Your task to perform on an android device: Search for "panasonic triple a" on amazon.com, select the first entry, and add it to the cart. Image 0: 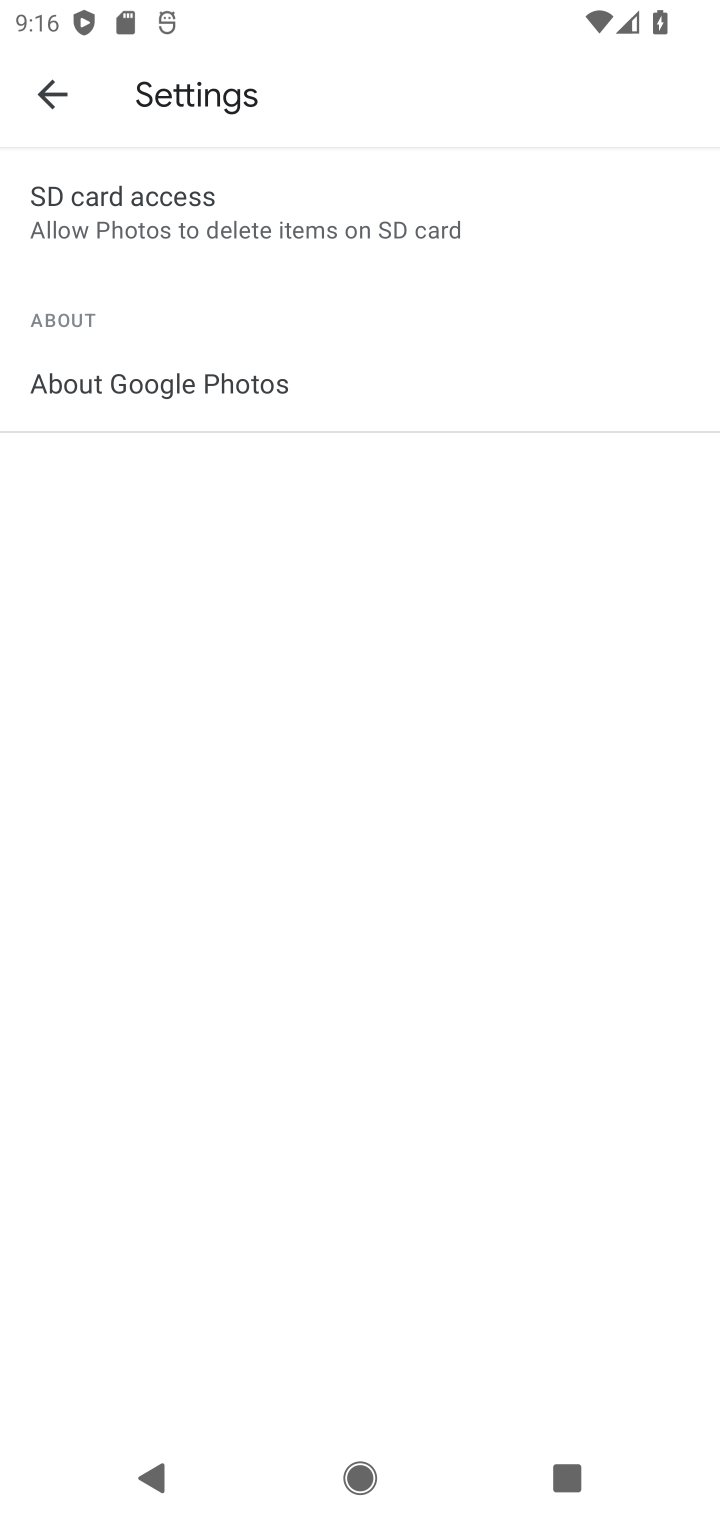
Step 0: press home button
Your task to perform on an android device: Search for "panasonic triple a" on amazon.com, select the first entry, and add it to the cart. Image 1: 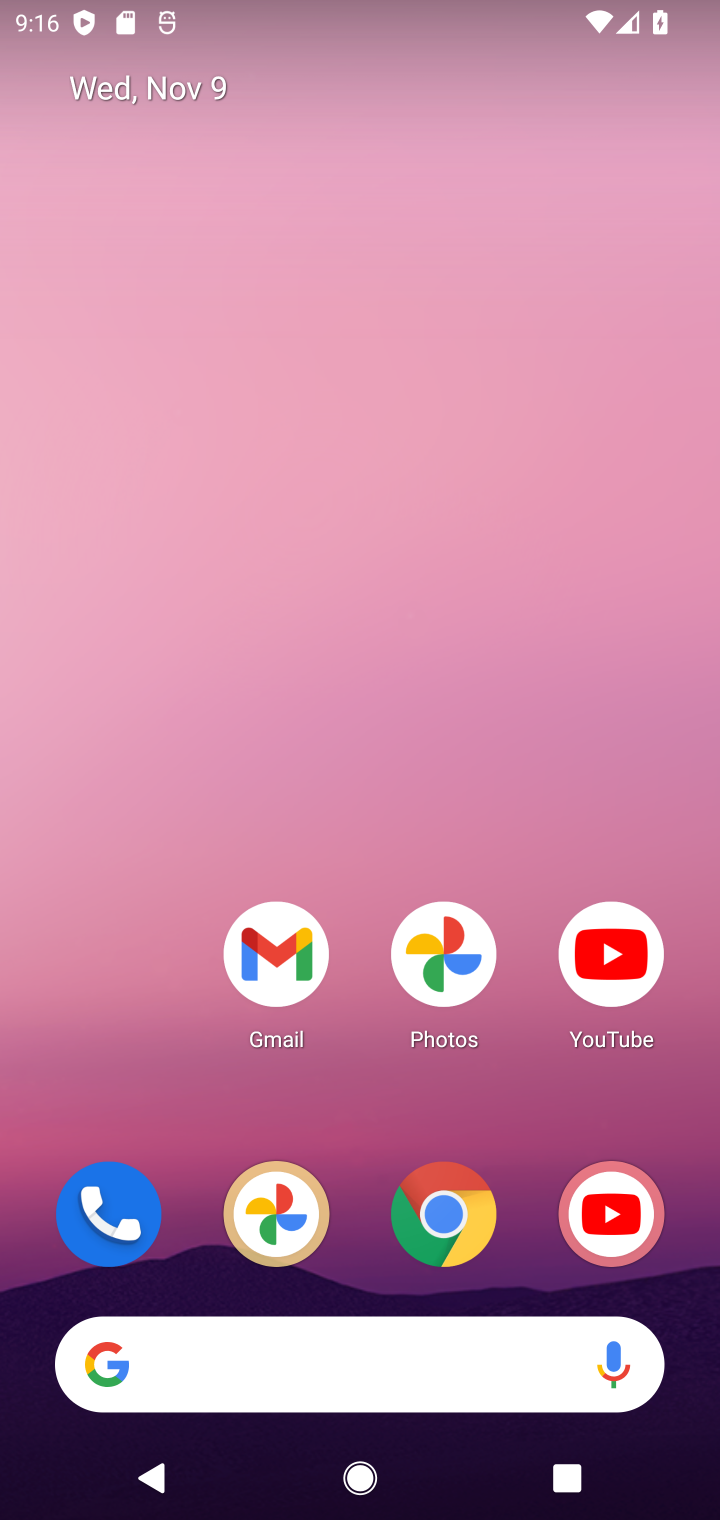
Step 1: drag from (408, 702) to (483, 104)
Your task to perform on an android device: Search for "panasonic triple a" on amazon.com, select the first entry, and add it to the cart. Image 2: 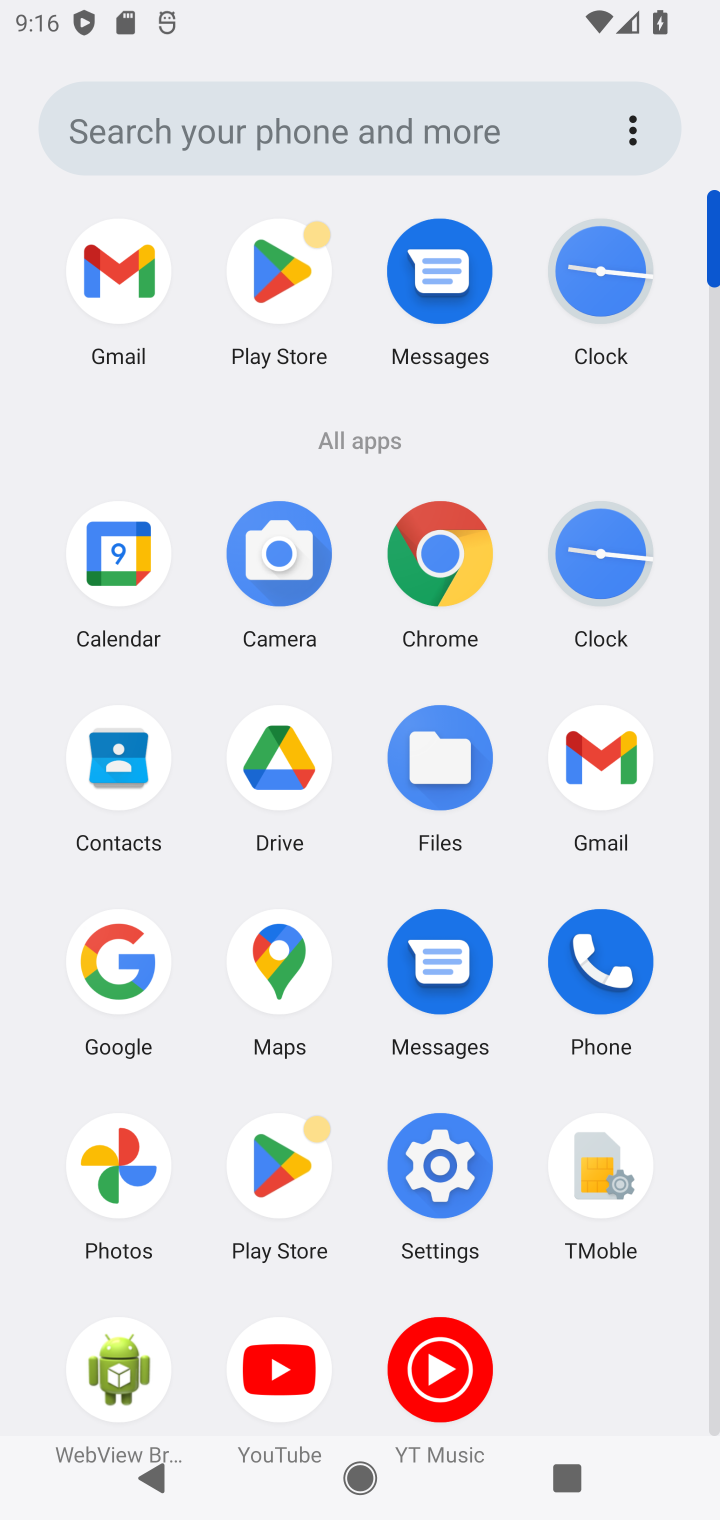
Step 2: click (443, 555)
Your task to perform on an android device: Search for "panasonic triple a" on amazon.com, select the first entry, and add it to the cart. Image 3: 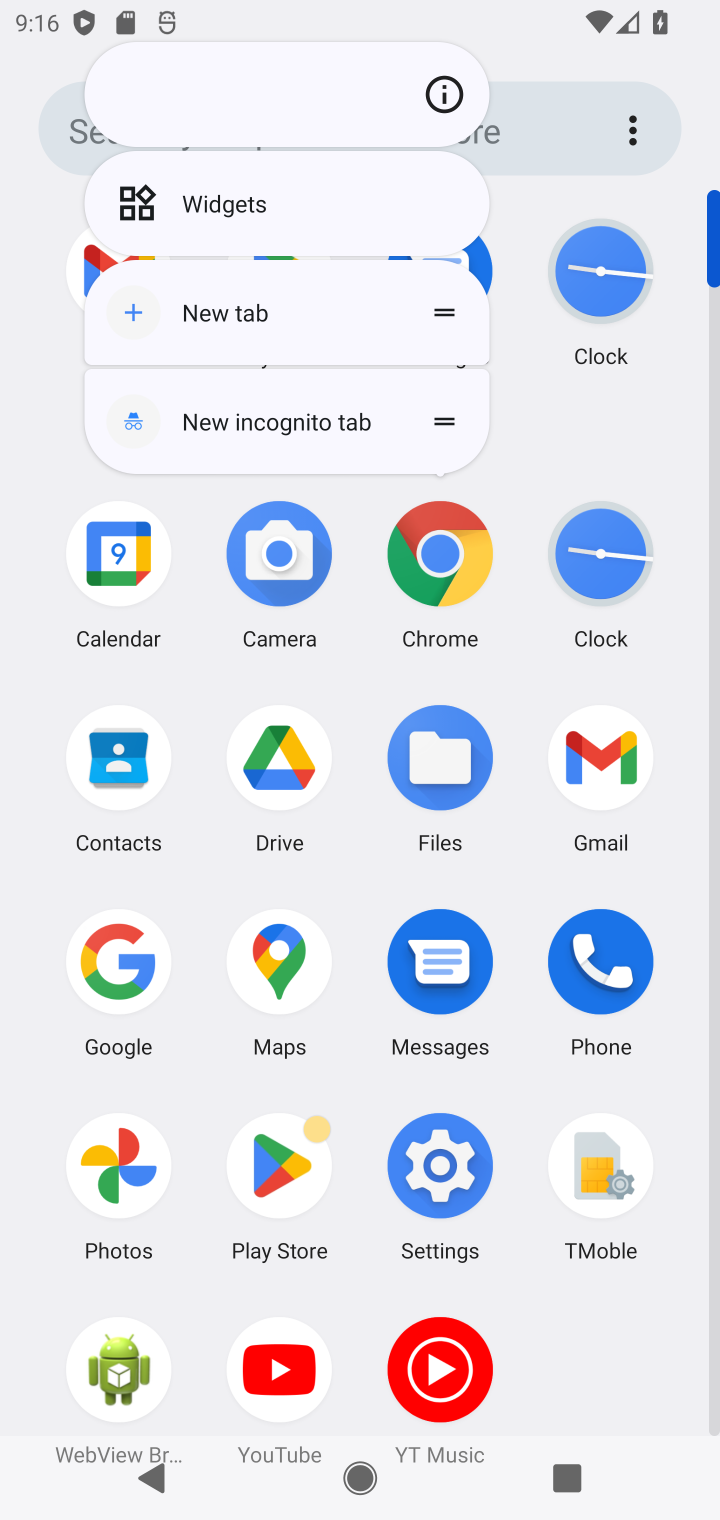
Step 3: click (436, 554)
Your task to perform on an android device: Search for "panasonic triple a" on amazon.com, select the first entry, and add it to the cart. Image 4: 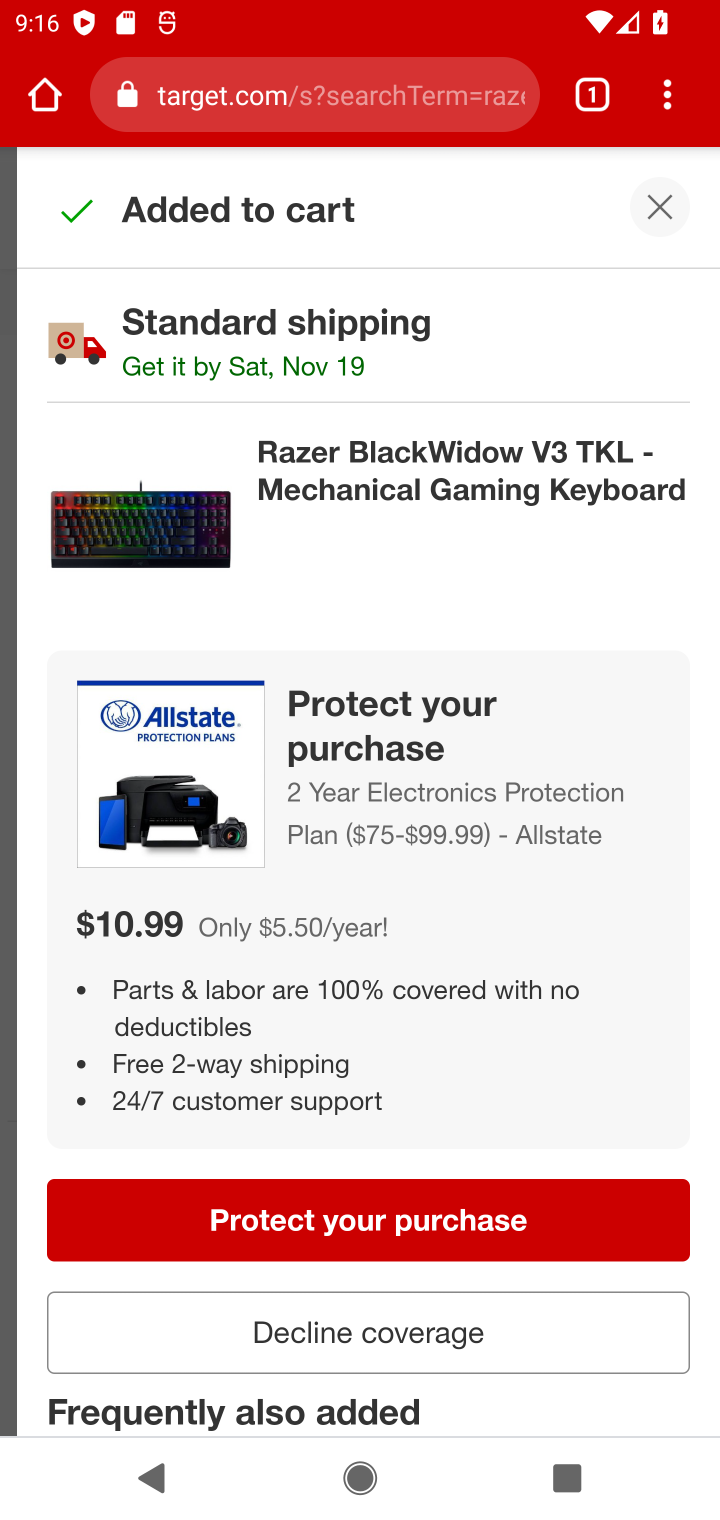
Step 4: click (342, 98)
Your task to perform on an android device: Search for "panasonic triple a" on amazon.com, select the first entry, and add it to the cart. Image 5: 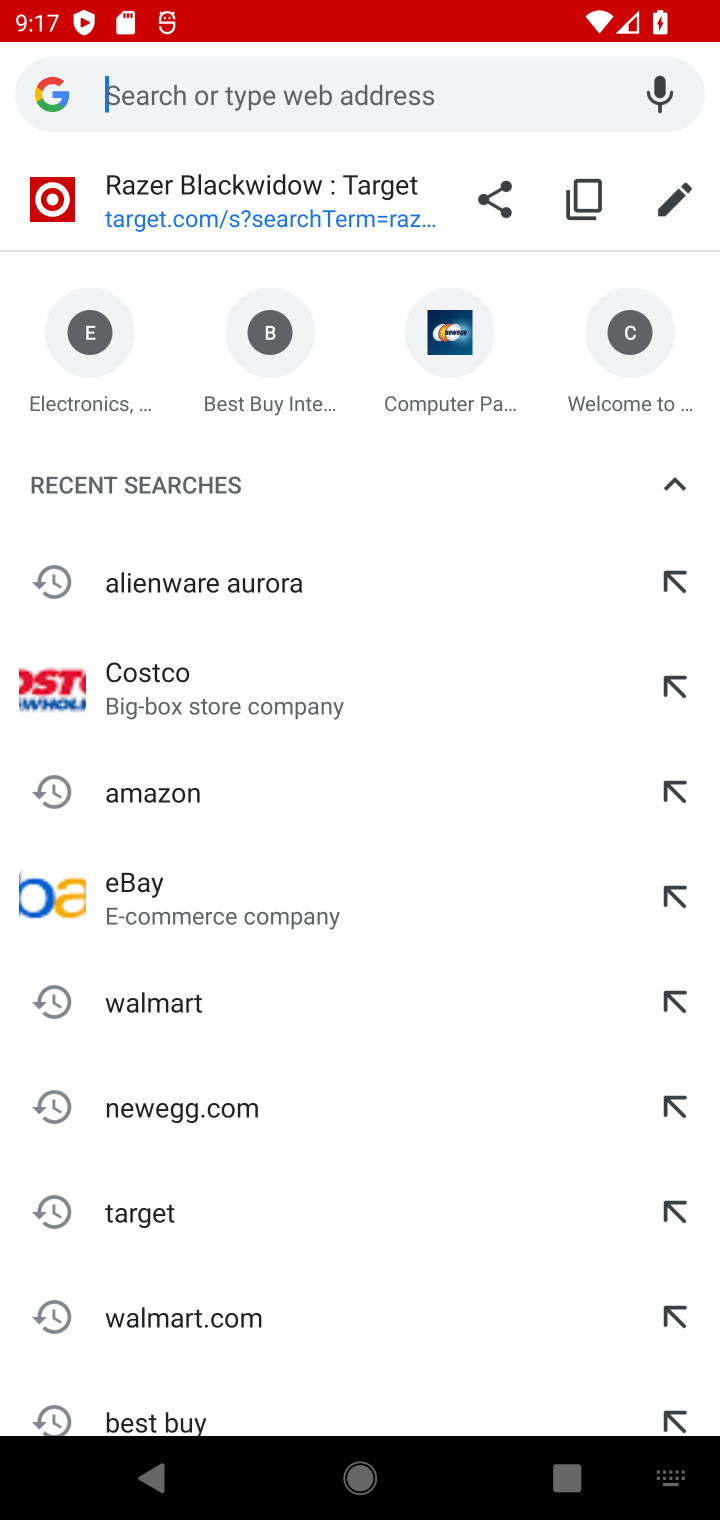
Step 5: type "amazon.com"
Your task to perform on an android device: Search for "panasonic triple a" on amazon.com, select the first entry, and add it to the cart. Image 6: 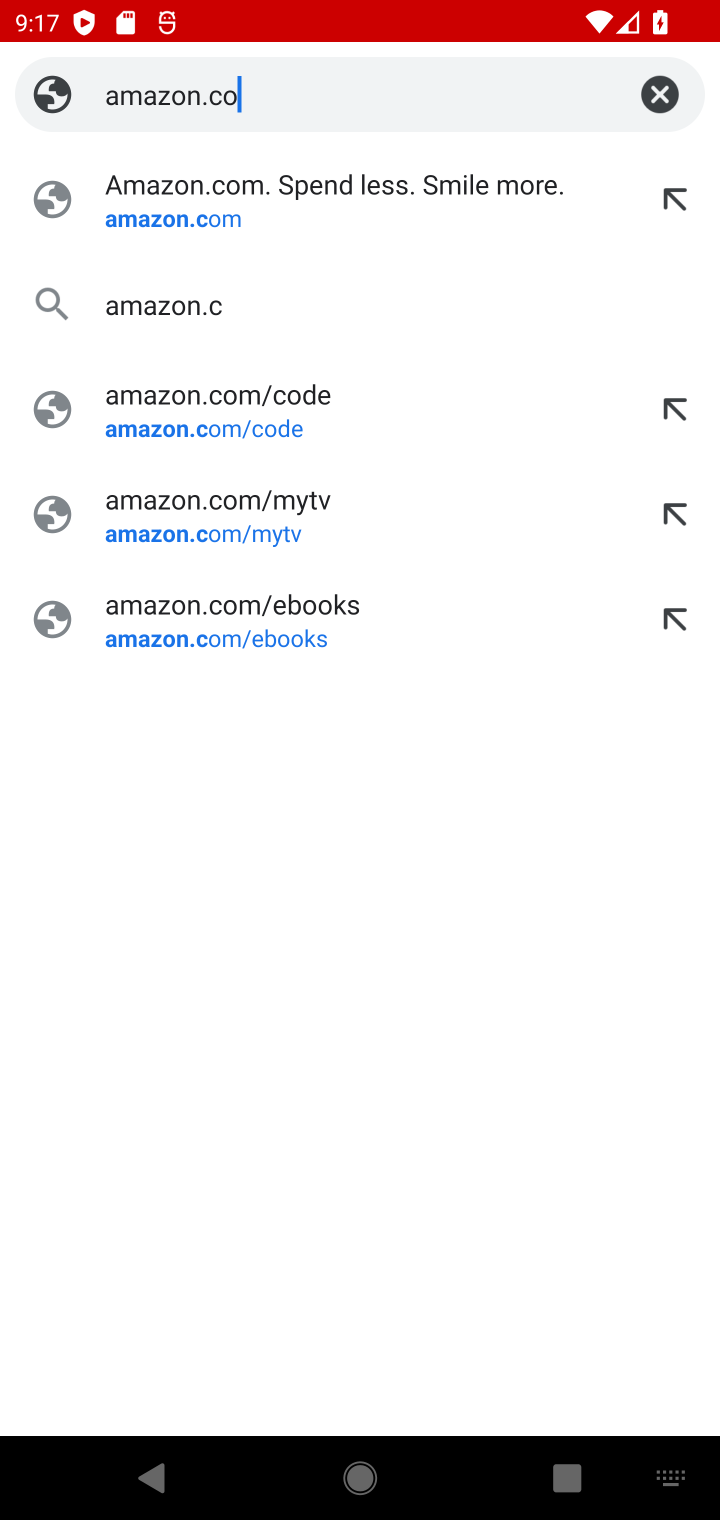
Step 6: press enter
Your task to perform on an android device: Search for "panasonic triple a" on amazon.com, select the first entry, and add it to the cart. Image 7: 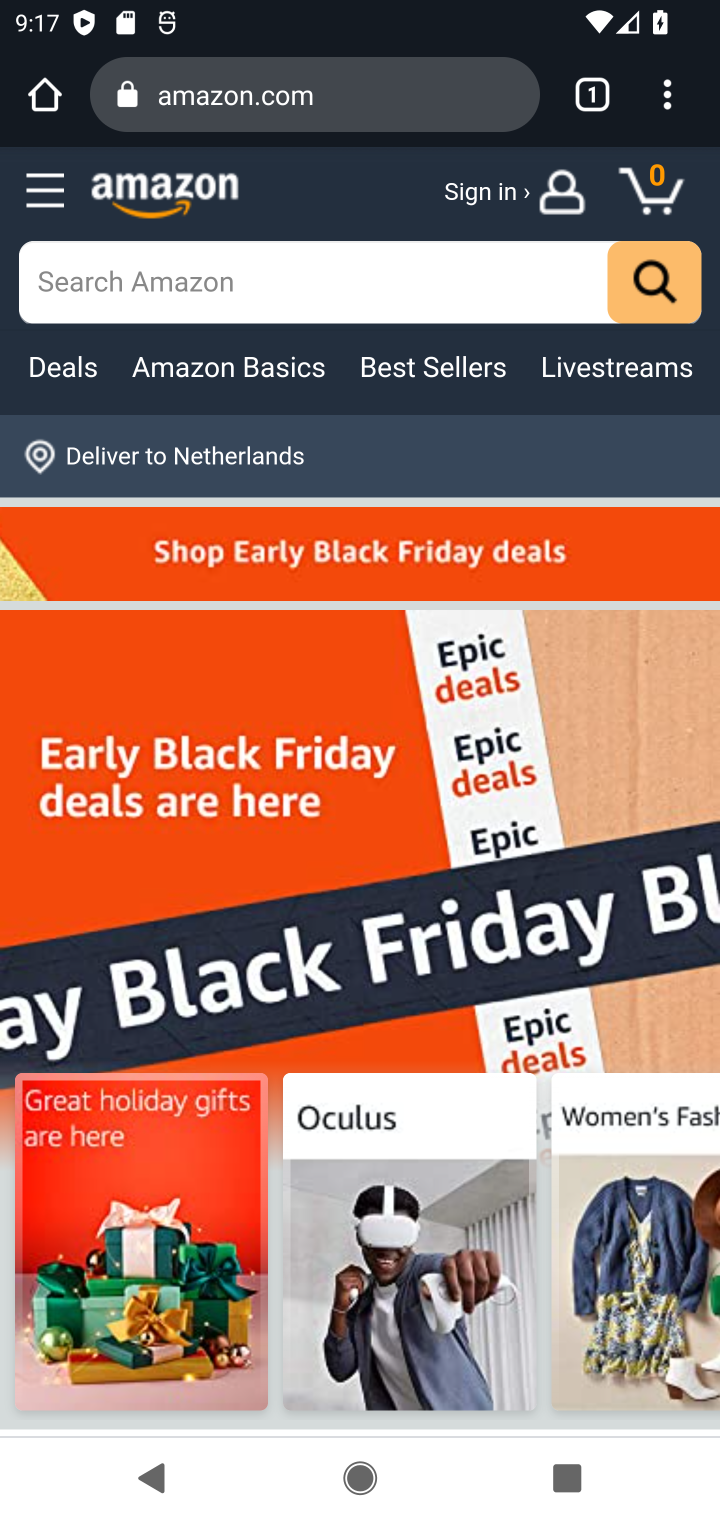
Step 7: click (463, 305)
Your task to perform on an android device: Search for "panasonic triple a" on amazon.com, select the first entry, and add it to the cart. Image 8: 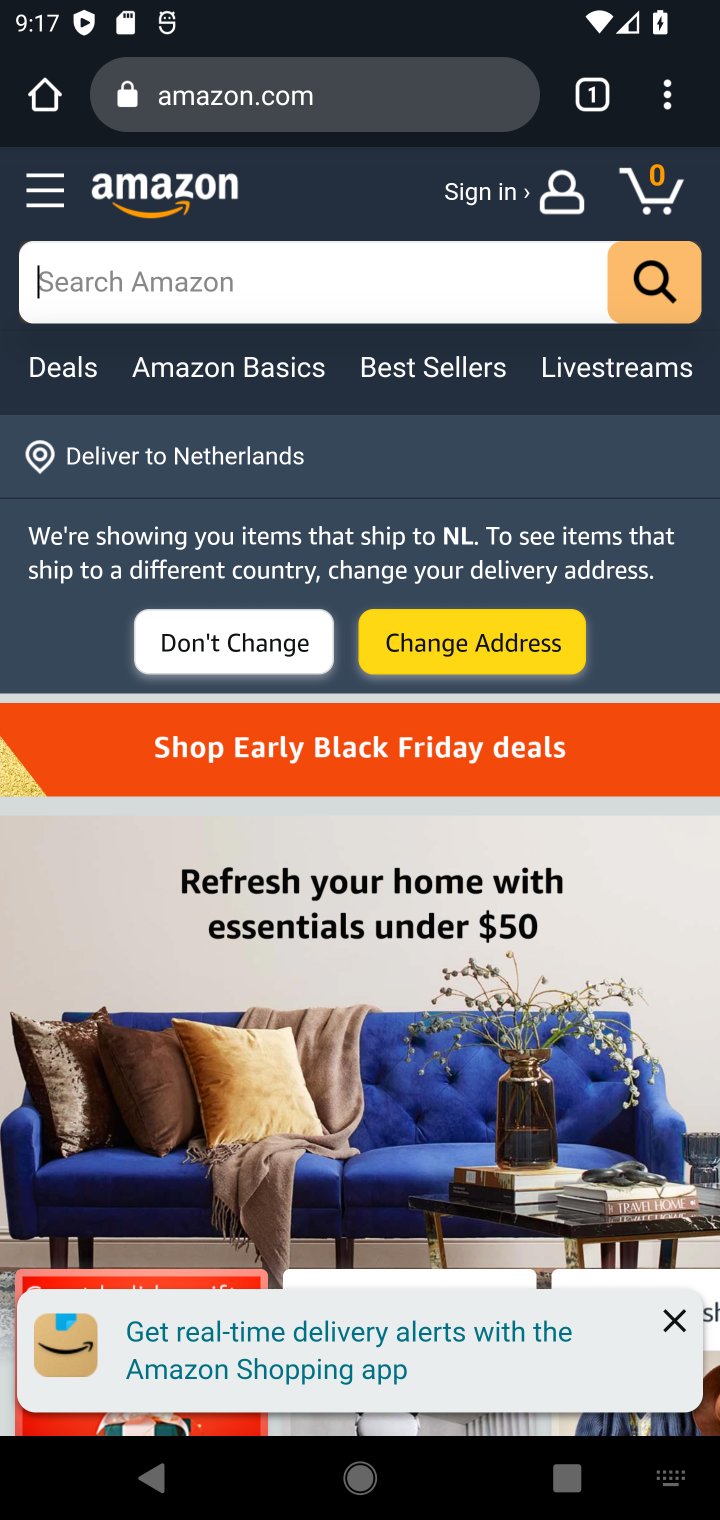
Step 8: type "panasonic triple a"
Your task to perform on an android device: Search for "panasonic triple a" on amazon.com, select the first entry, and add it to the cart. Image 9: 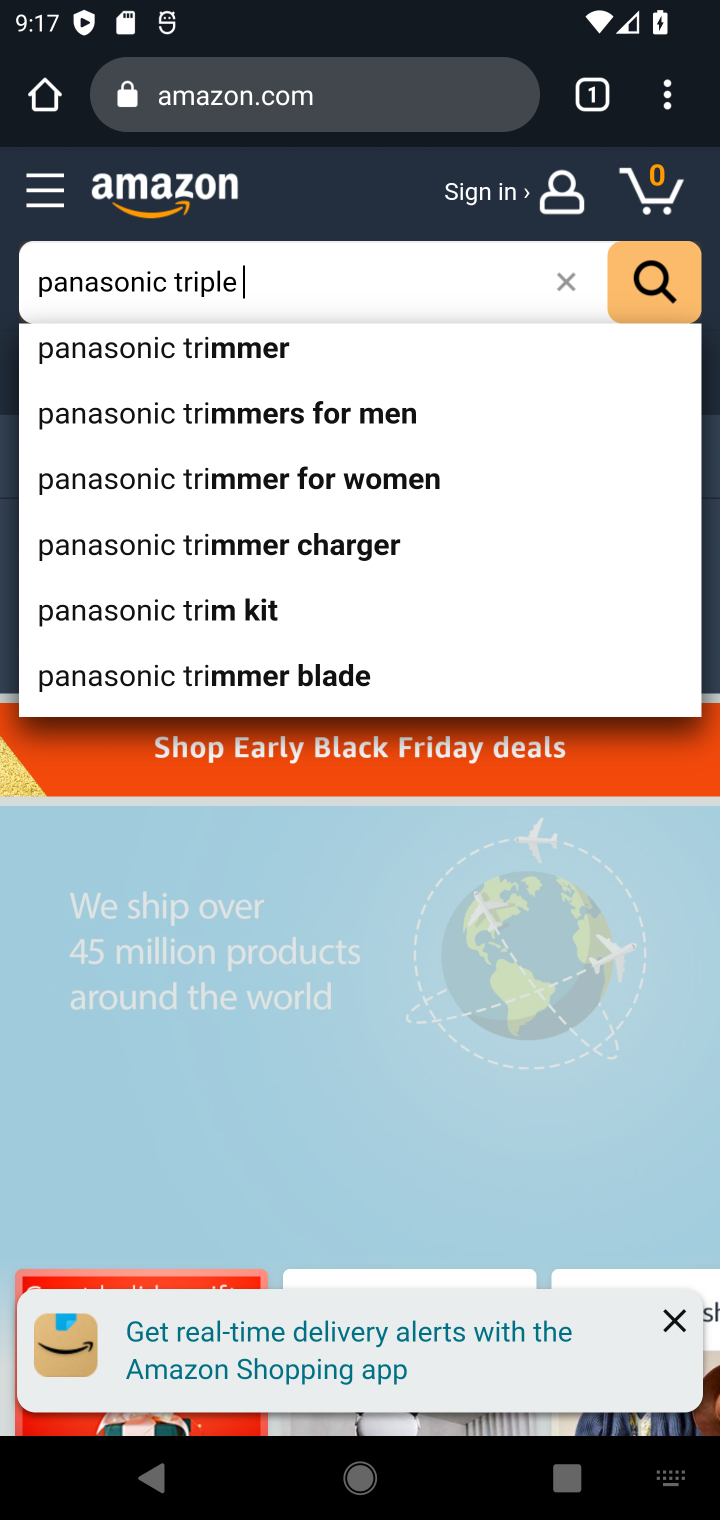
Step 9: press enter
Your task to perform on an android device: Search for "panasonic triple a" on amazon.com, select the first entry, and add it to the cart. Image 10: 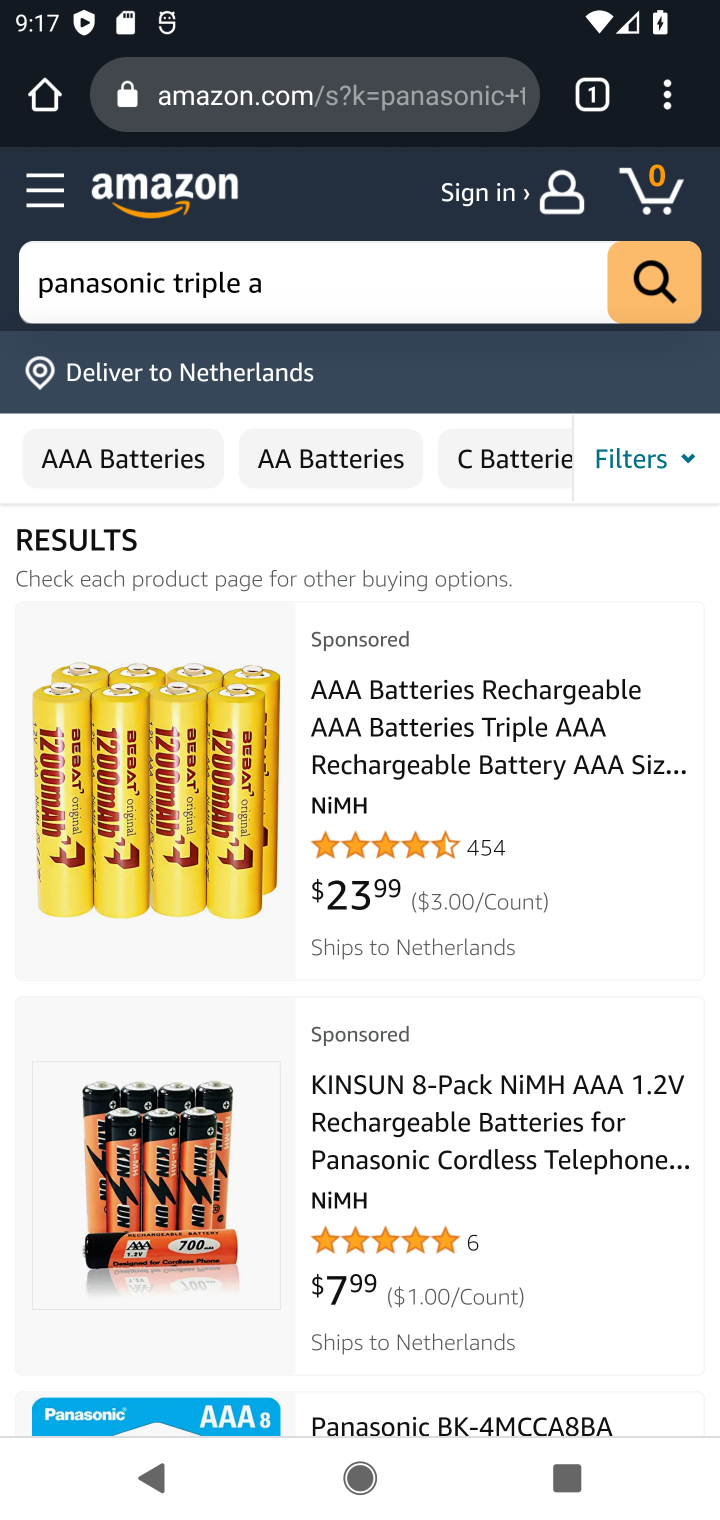
Step 10: drag from (453, 1267) to (456, 484)
Your task to perform on an android device: Search for "panasonic triple a" on amazon.com, select the first entry, and add it to the cart. Image 11: 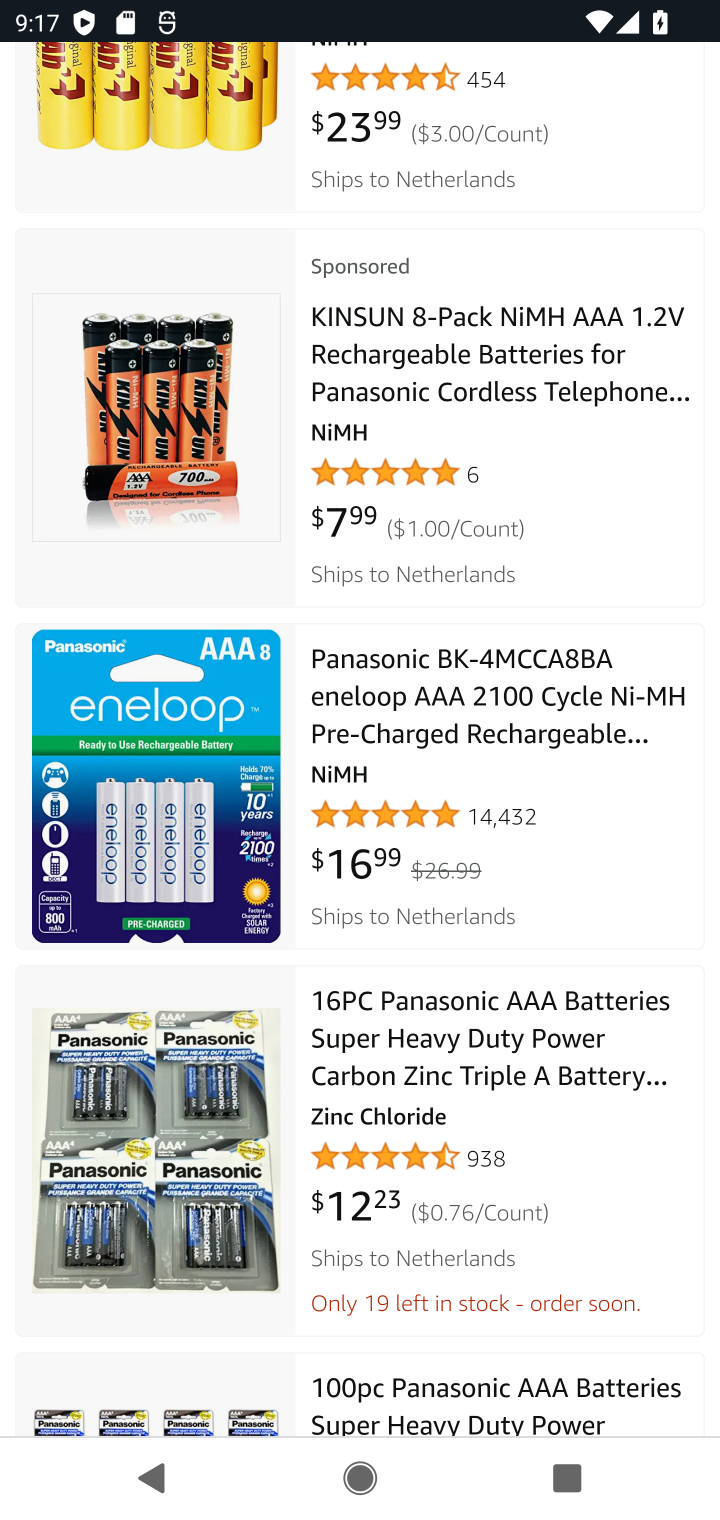
Step 11: click (416, 715)
Your task to perform on an android device: Search for "panasonic triple a" on amazon.com, select the first entry, and add it to the cart. Image 12: 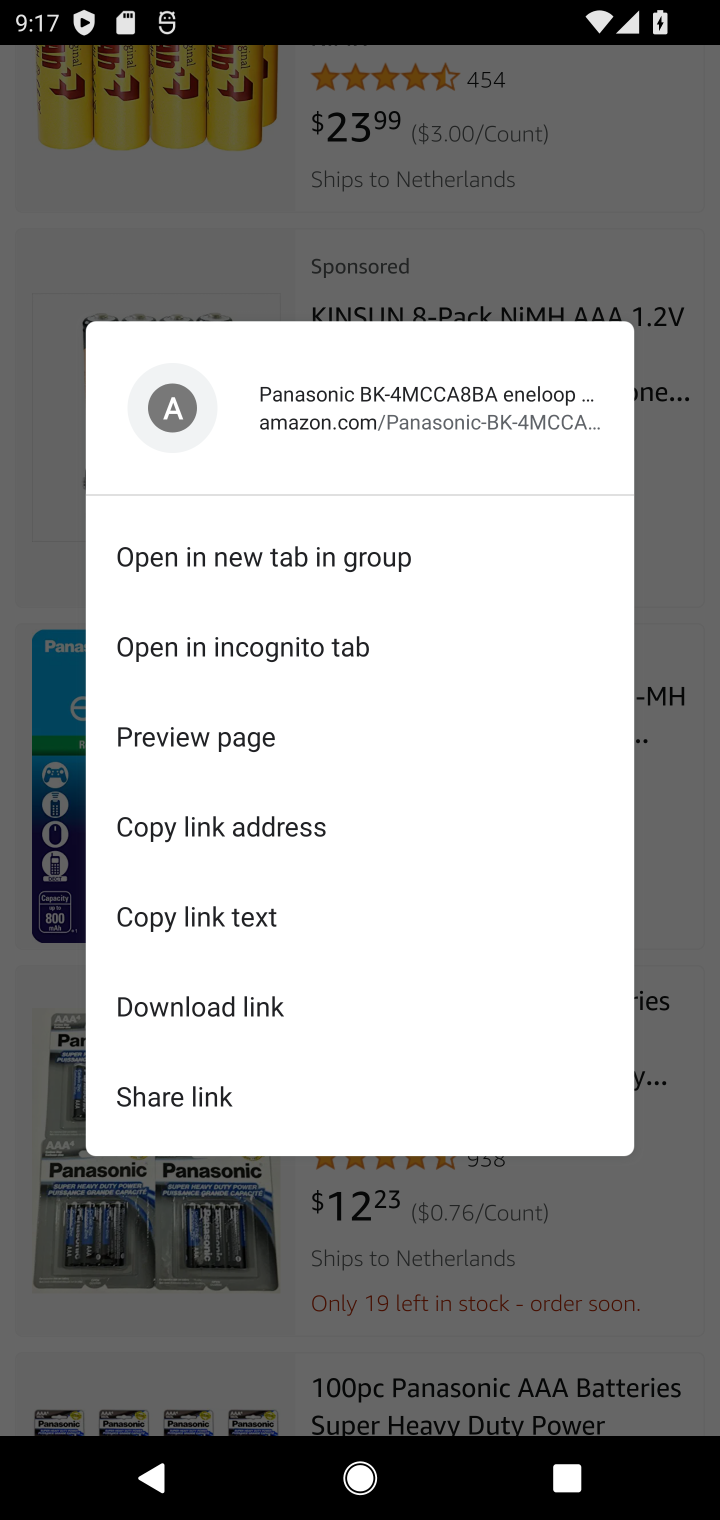
Step 12: click (668, 583)
Your task to perform on an android device: Search for "panasonic triple a" on amazon.com, select the first entry, and add it to the cart. Image 13: 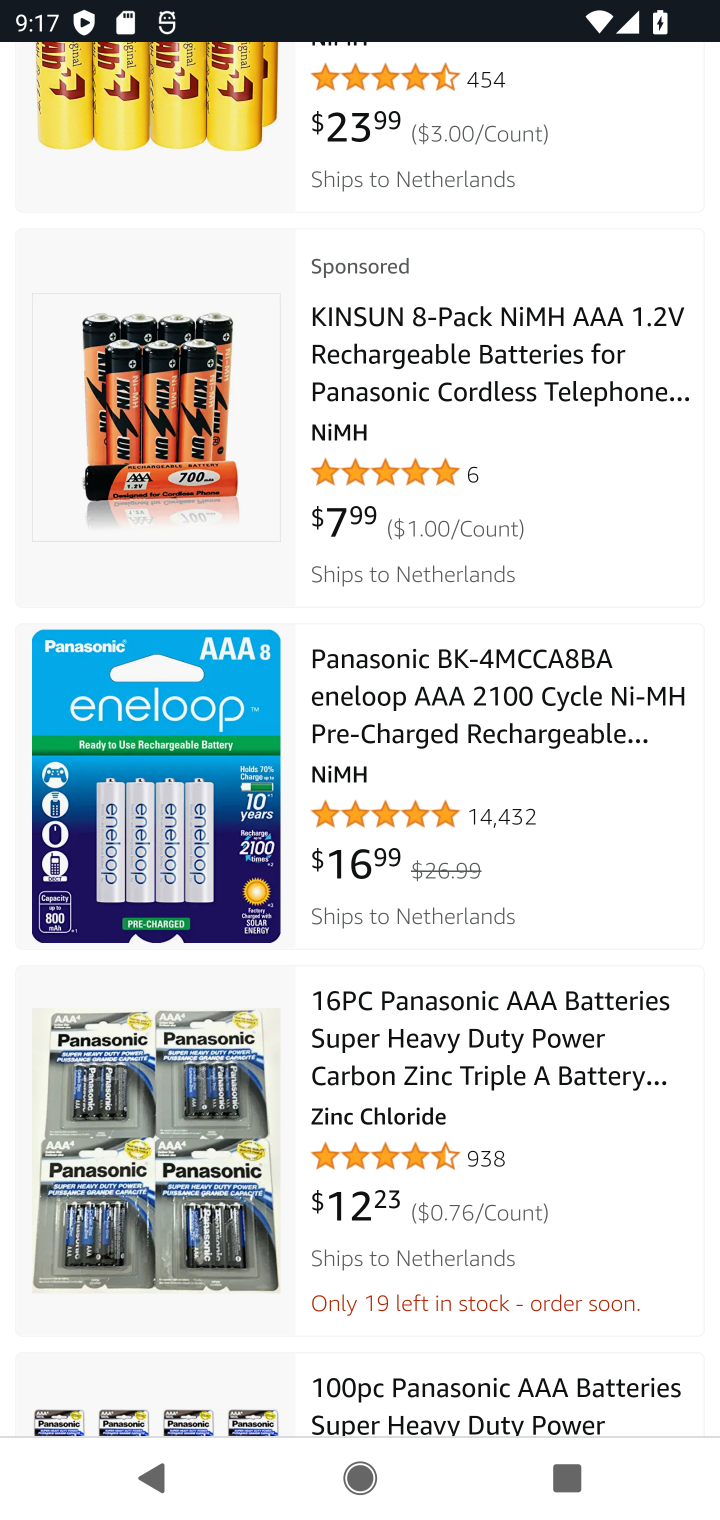
Step 13: click (381, 708)
Your task to perform on an android device: Search for "panasonic triple a" on amazon.com, select the first entry, and add it to the cart. Image 14: 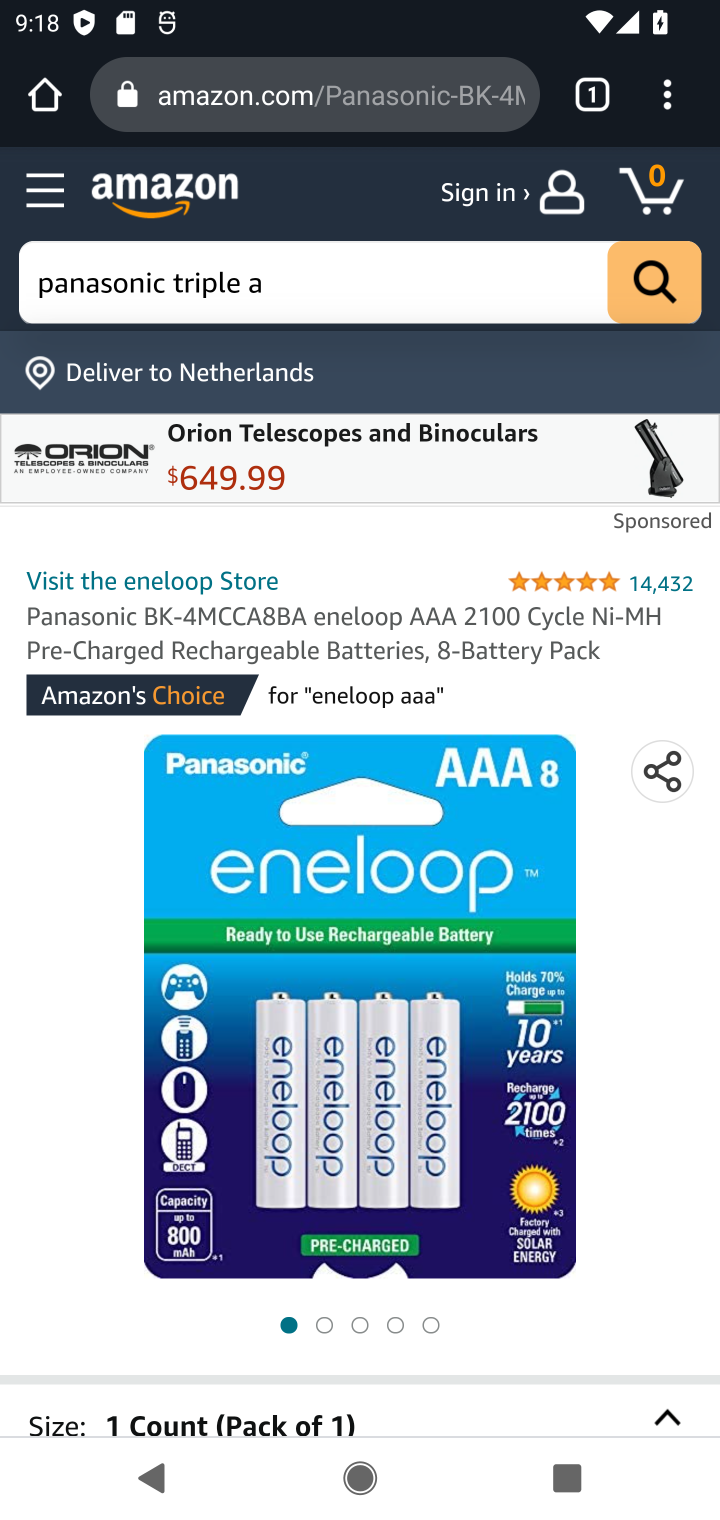
Step 14: drag from (537, 990) to (447, 131)
Your task to perform on an android device: Search for "panasonic triple a" on amazon.com, select the first entry, and add it to the cart. Image 15: 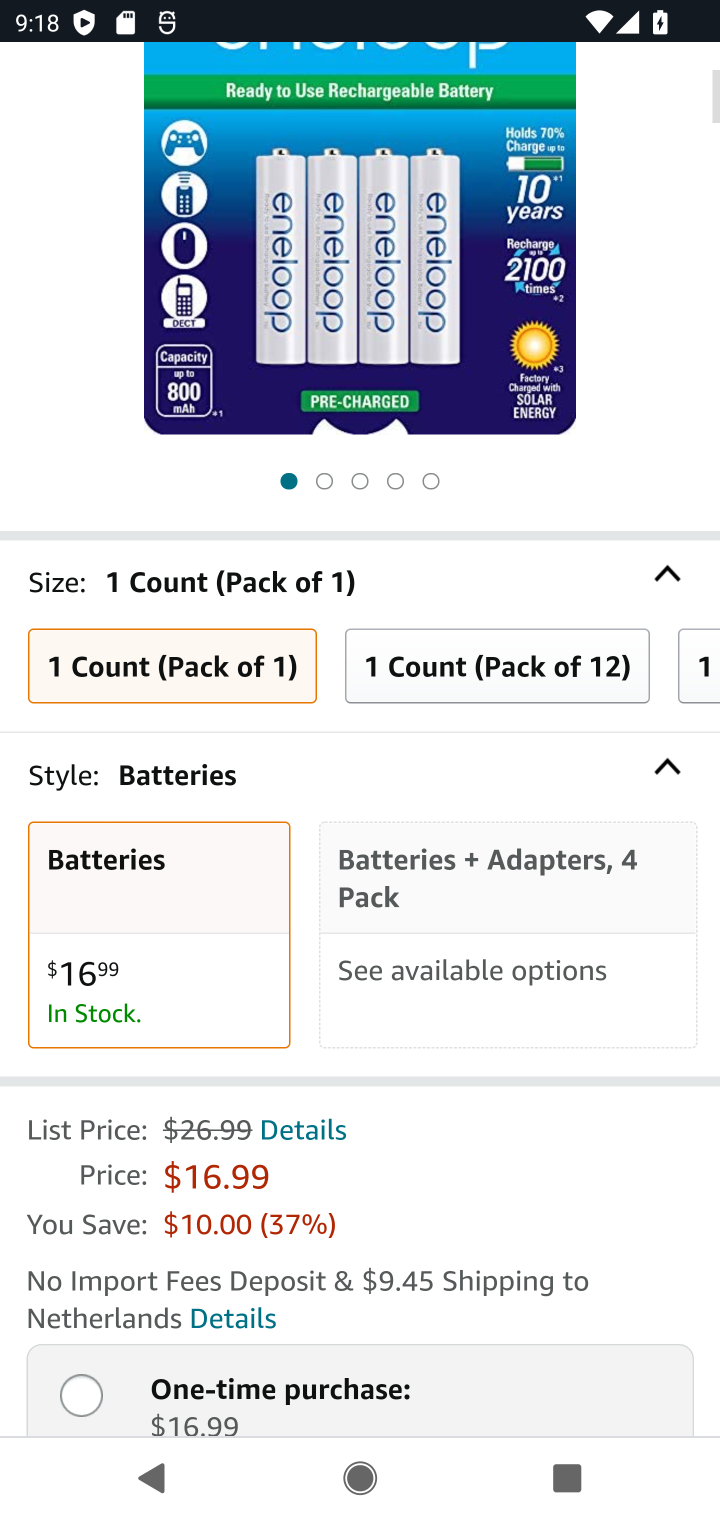
Step 15: drag from (506, 837) to (518, 479)
Your task to perform on an android device: Search for "panasonic triple a" on amazon.com, select the first entry, and add it to the cart. Image 16: 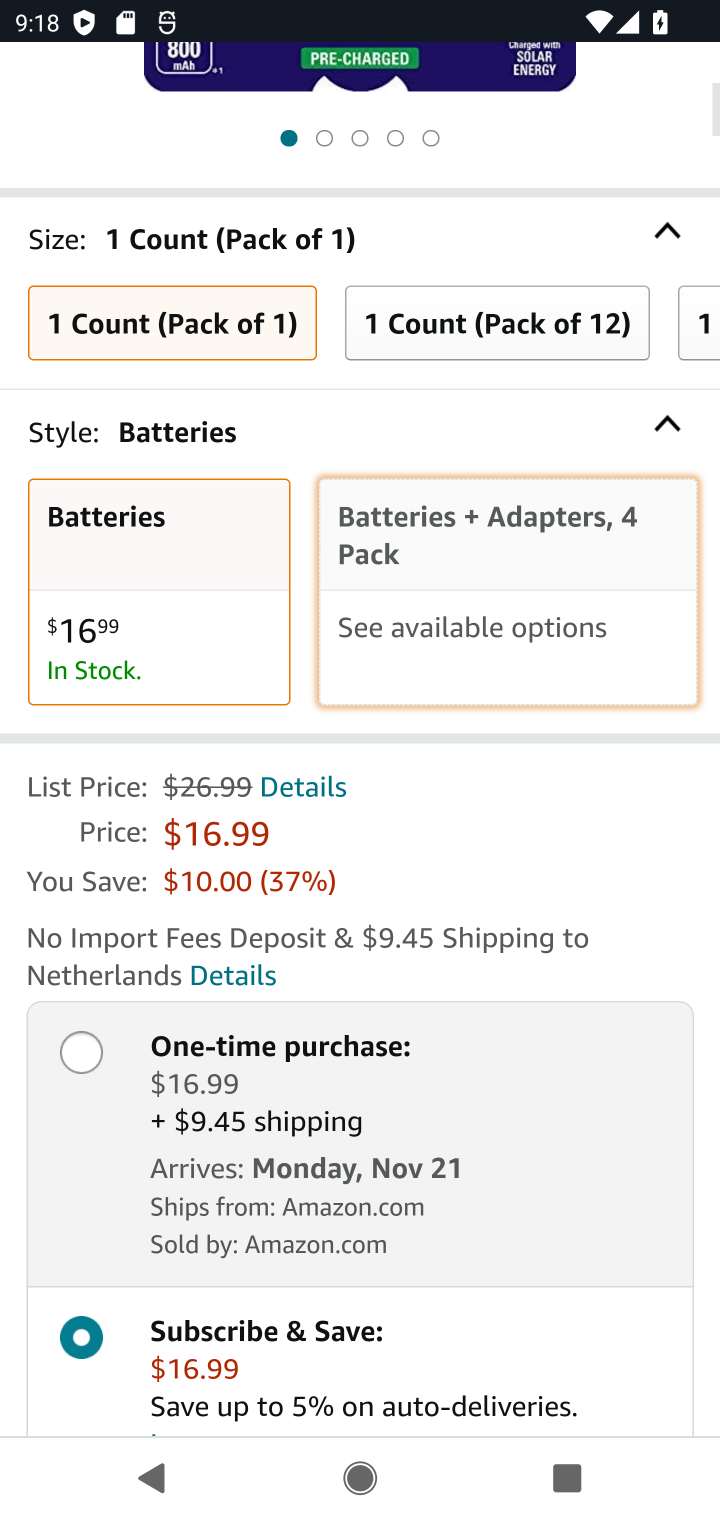
Step 16: drag from (411, 1326) to (421, 560)
Your task to perform on an android device: Search for "panasonic triple a" on amazon.com, select the first entry, and add it to the cart. Image 17: 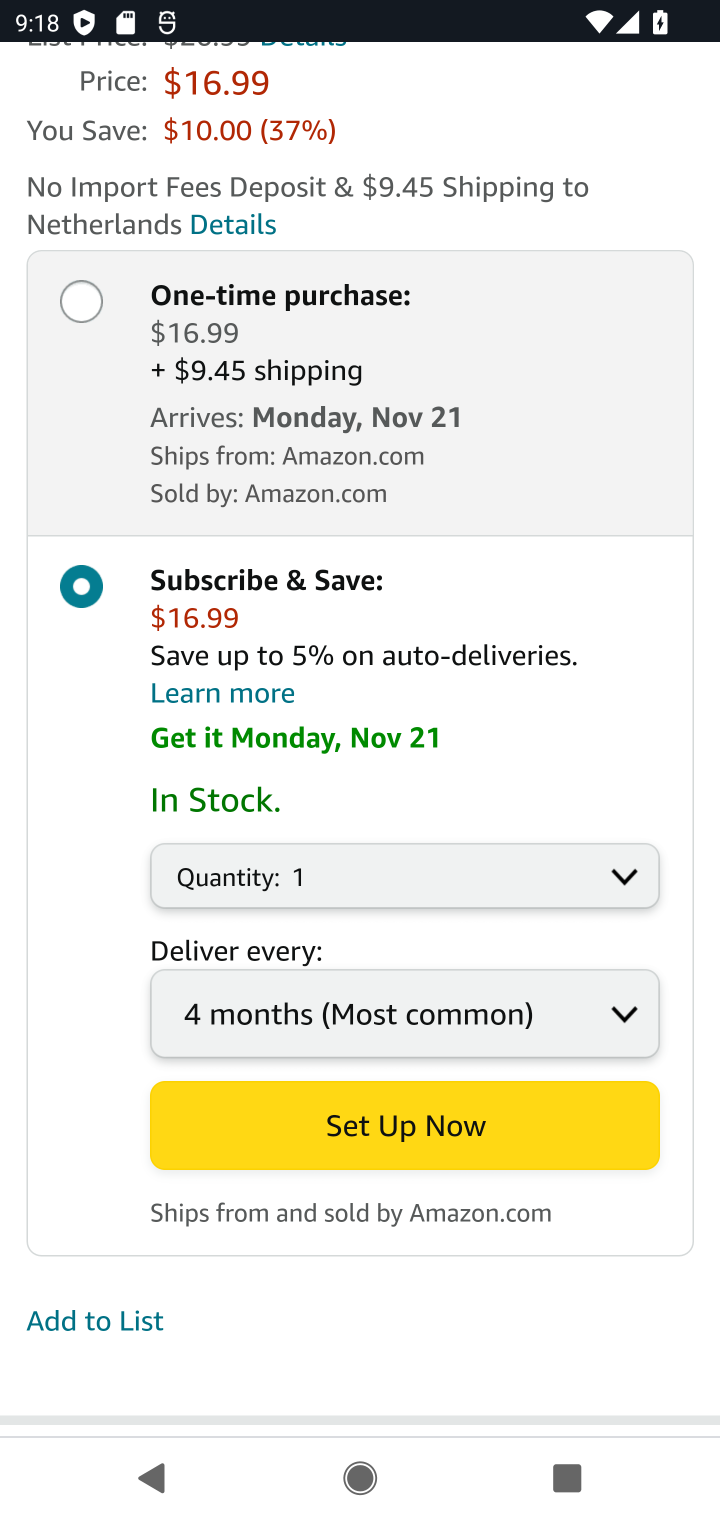
Step 17: click (256, 301)
Your task to perform on an android device: Search for "panasonic triple a" on amazon.com, select the first entry, and add it to the cart. Image 18: 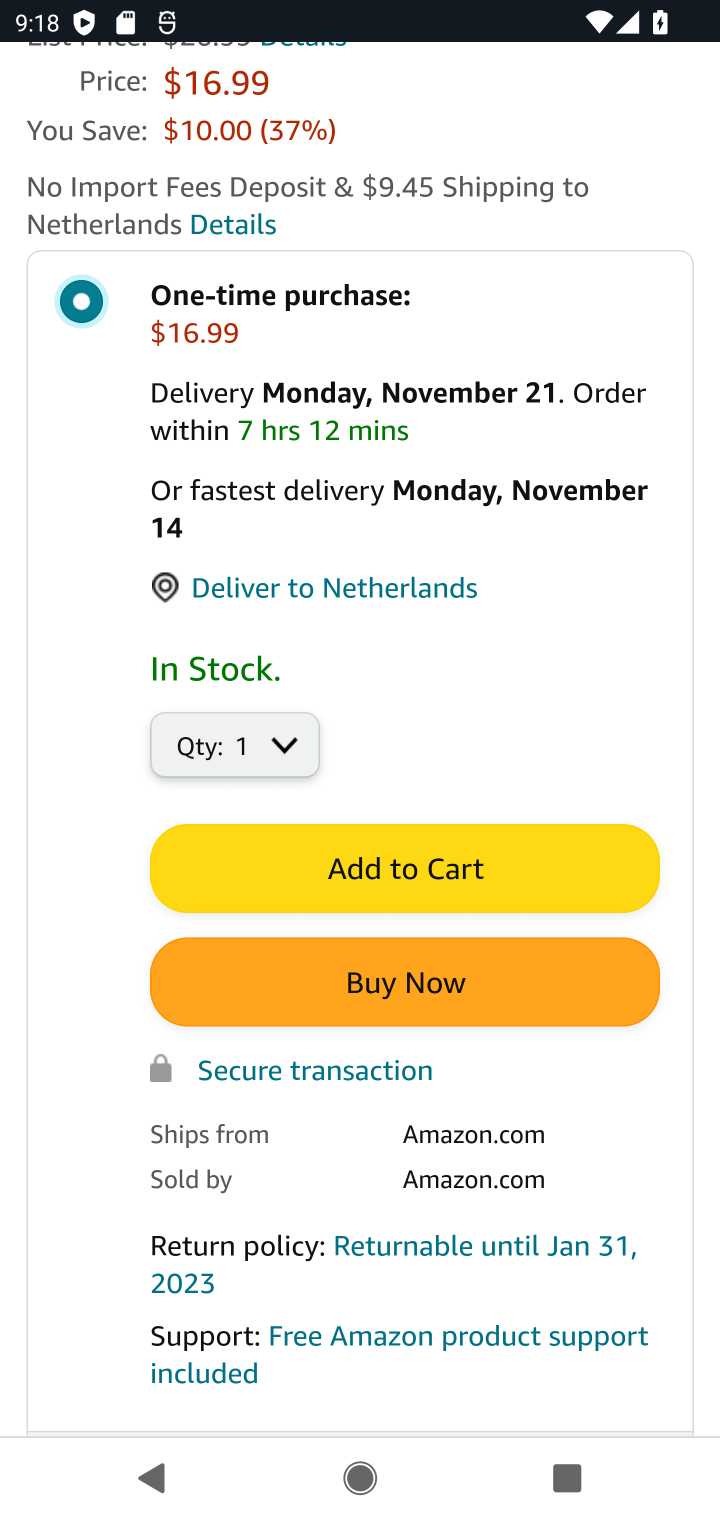
Step 18: click (478, 884)
Your task to perform on an android device: Search for "panasonic triple a" on amazon.com, select the first entry, and add it to the cart. Image 19: 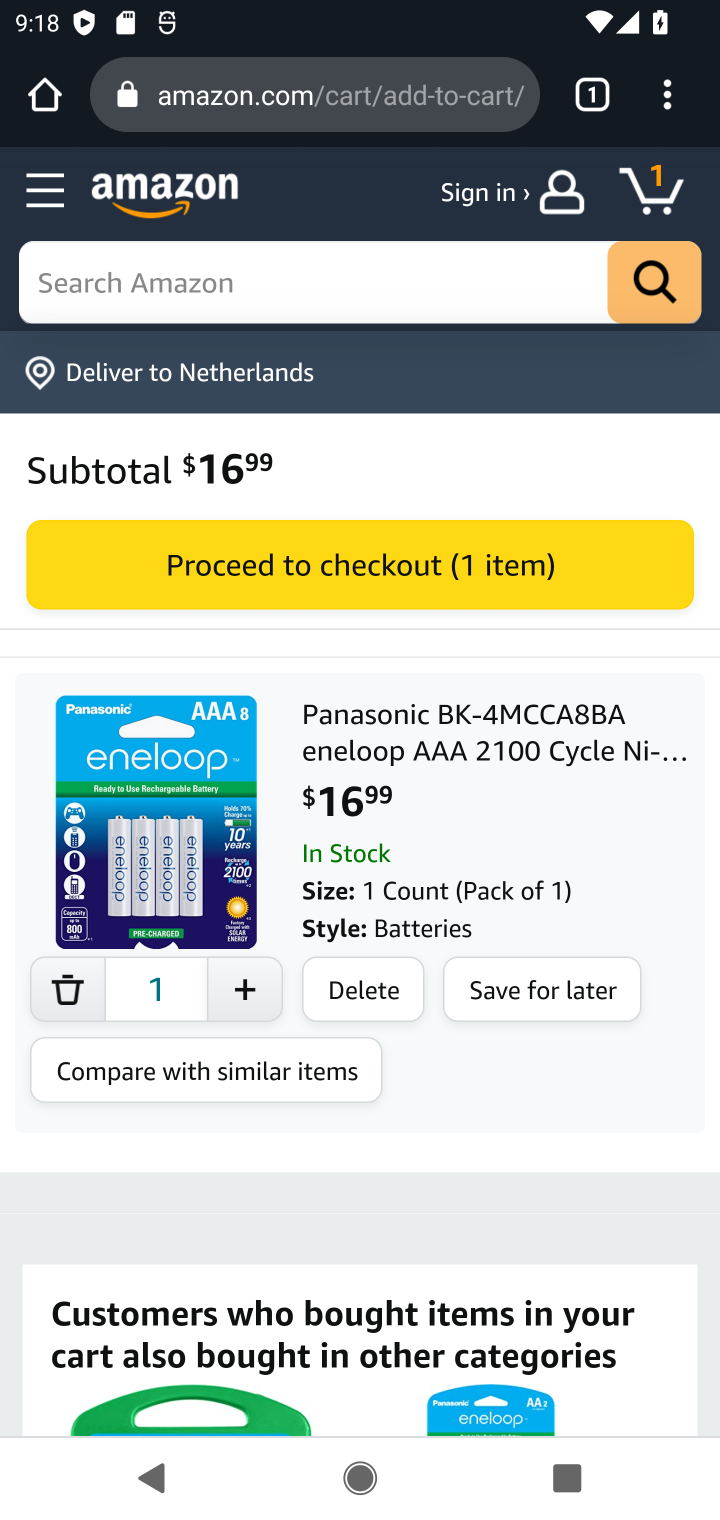
Step 19: task complete